Your task to perform on an android device: What is the recent news? Image 0: 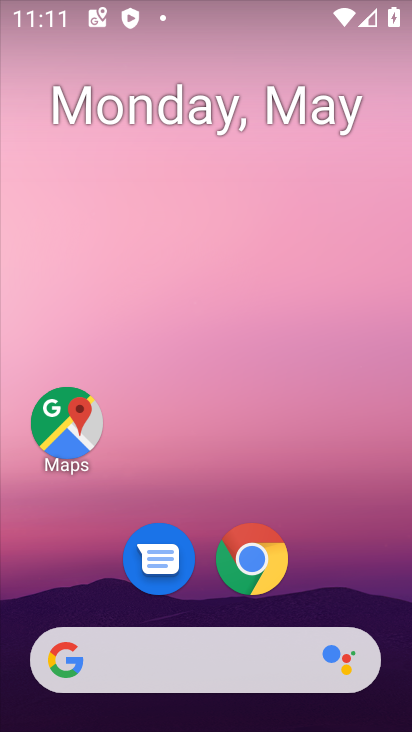
Step 0: click (251, 583)
Your task to perform on an android device: What is the recent news? Image 1: 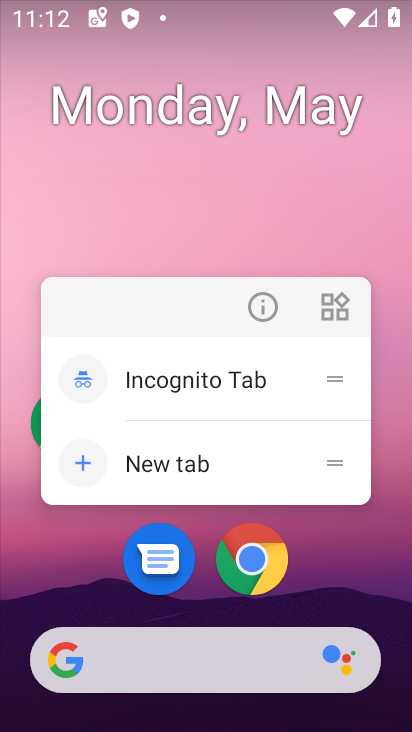
Step 1: click (274, 552)
Your task to perform on an android device: What is the recent news? Image 2: 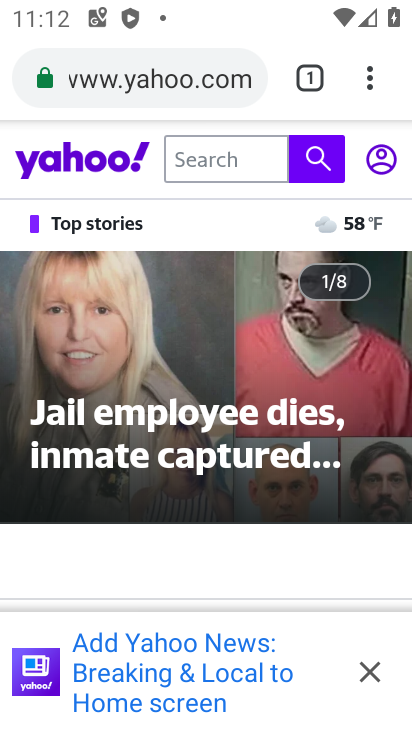
Step 2: click (169, 69)
Your task to perform on an android device: What is the recent news? Image 3: 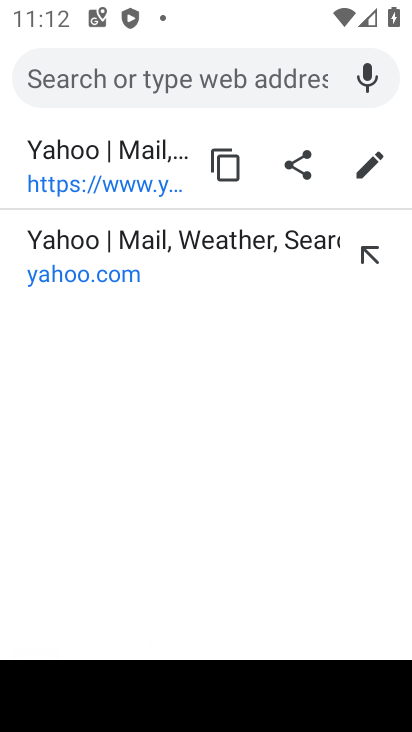
Step 3: type "What is the recent news?"
Your task to perform on an android device: What is the recent news? Image 4: 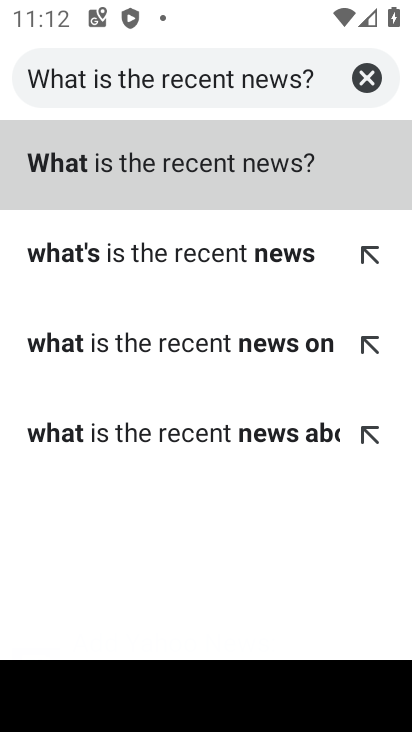
Step 4: click (117, 53)
Your task to perform on an android device: What is the recent news? Image 5: 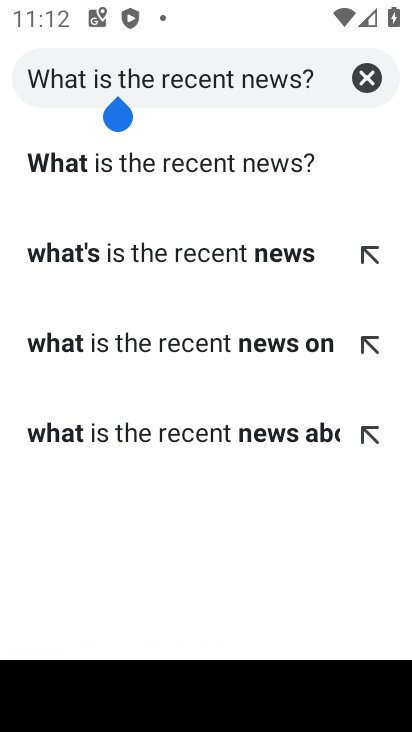
Step 5: click (330, 173)
Your task to perform on an android device: What is the recent news? Image 6: 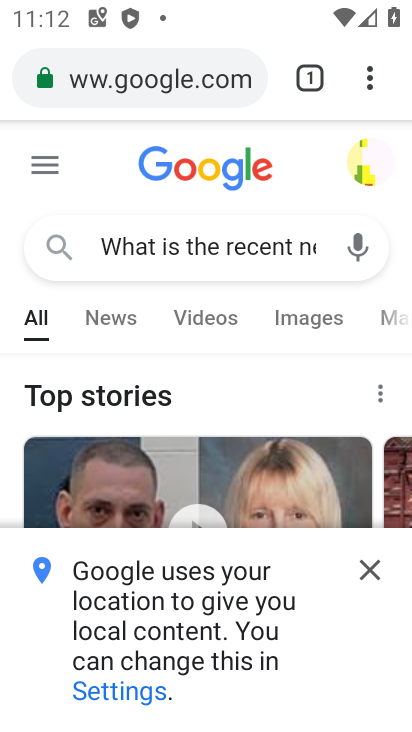
Step 6: task complete